Your task to perform on an android device: find photos in the google photos app Image 0: 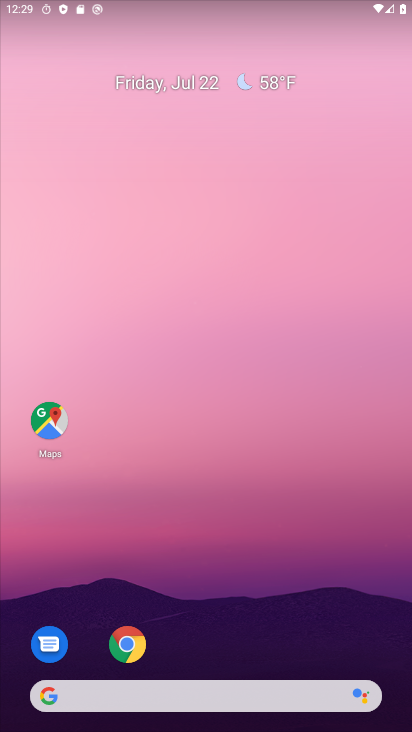
Step 0: click (236, 7)
Your task to perform on an android device: find photos in the google photos app Image 1: 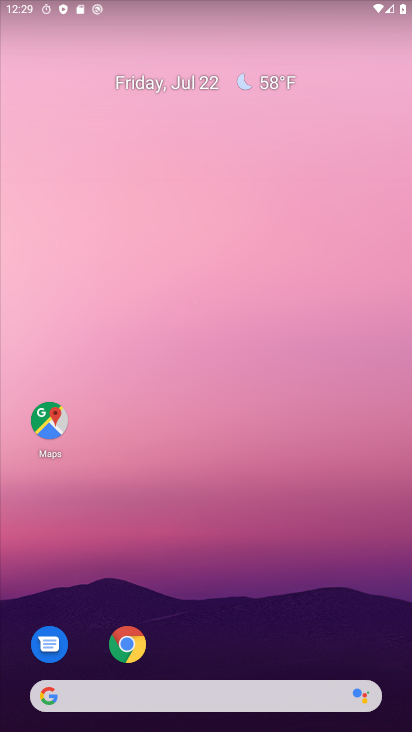
Step 1: drag from (187, 647) to (255, 54)
Your task to perform on an android device: find photos in the google photos app Image 2: 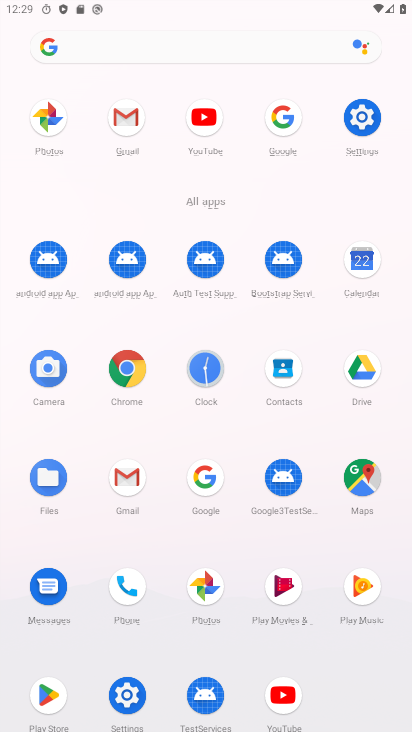
Step 2: click (199, 587)
Your task to perform on an android device: find photos in the google photos app Image 3: 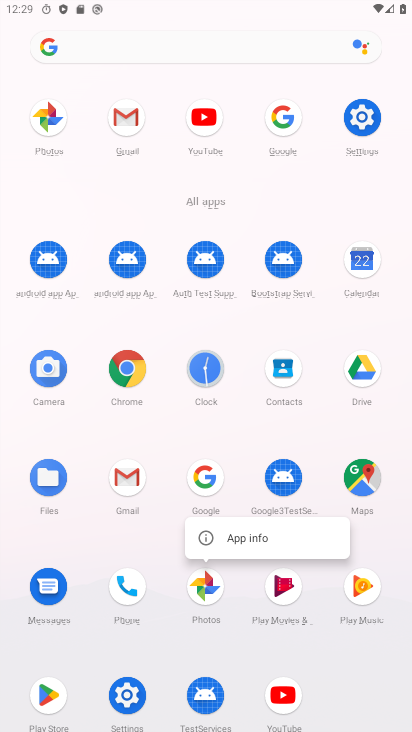
Step 3: click (237, 541)
Your task to perform on an android device: find photos in the google photos app Image 4: 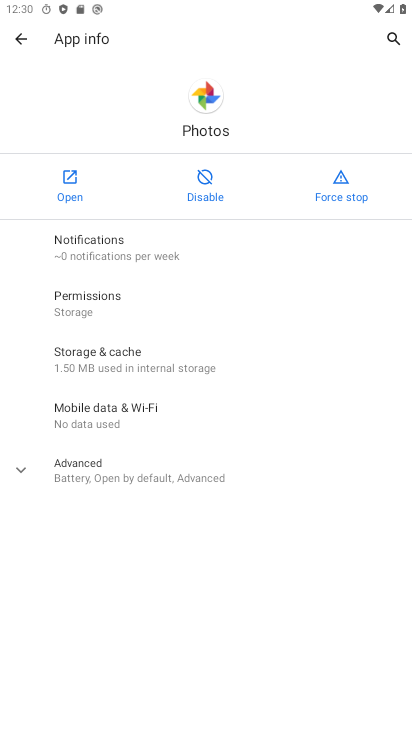
Step 4: click (78, 180)
Your task to perform on an android device: find photos in the google photos app Image 5: 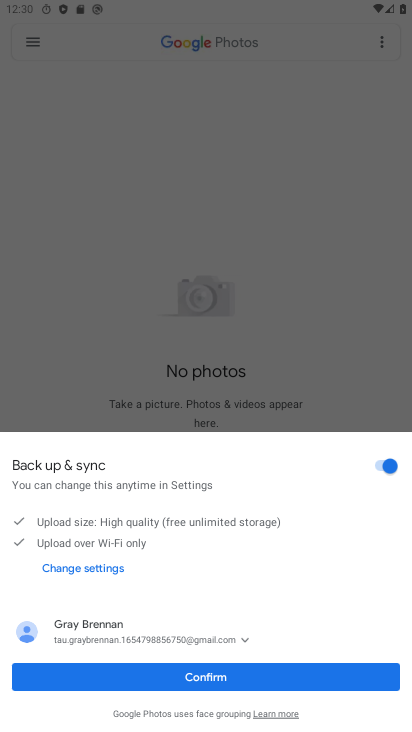
Step 5: click (175, 679)
Your task to perform on an android device: find photos in the google photos app Image 6: 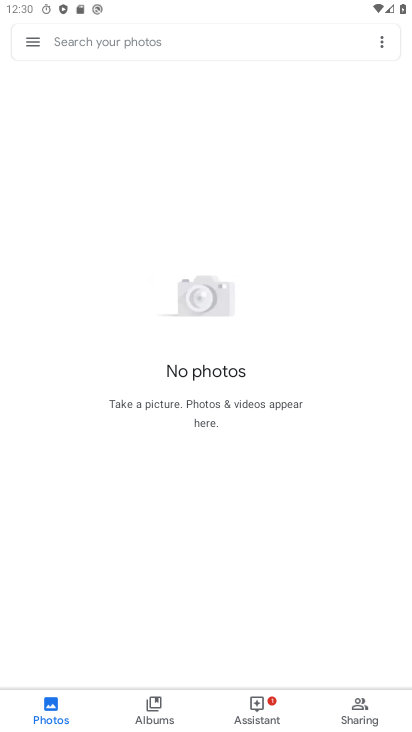
Step 6: click (159, 712)
Your task to perform on an android device: find photos in the google photos app Image 7: 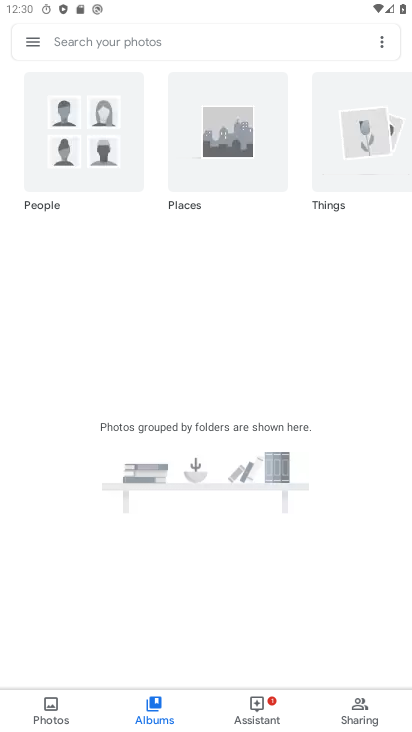
Step 7: task complete